Your task to perform on an android device: Do I have any events today? Image 0: 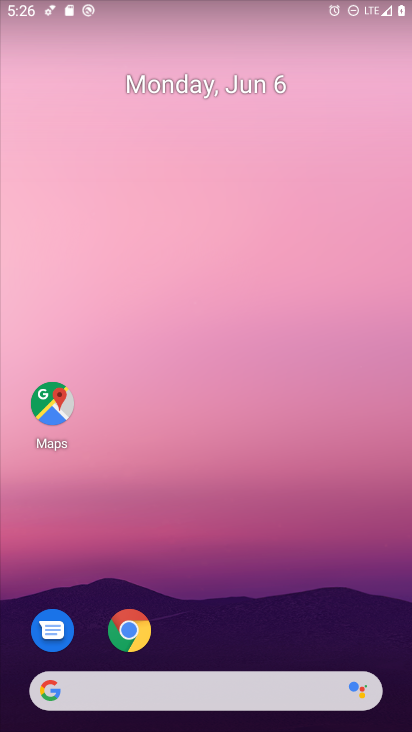
Step 0: drag from (290, 443) to (215, 56)
Your task to perform on an android device: Do I have any events today? Image 1: 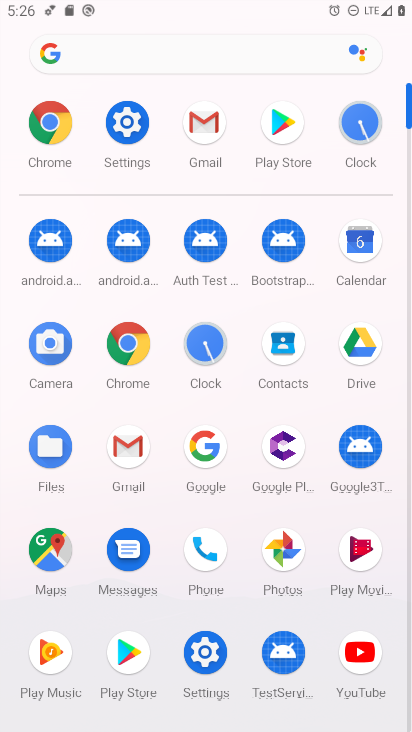
Step 1: click (369, 248)
Your task to perform on an android device: Do I have any events today? Image 2: 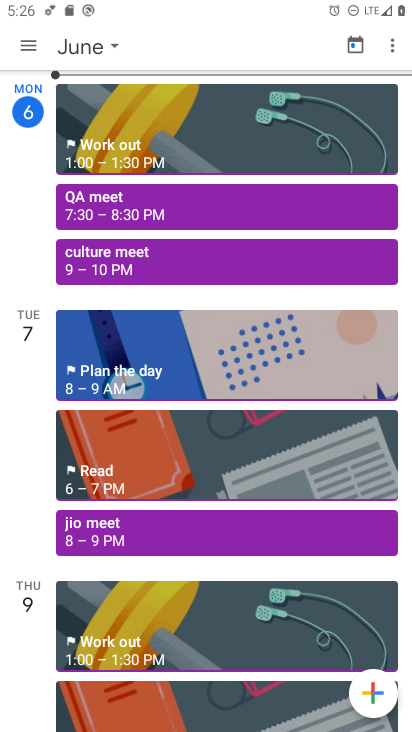
Step 2: task complete